Your task to perform on an android device: set an alarm Image 0: 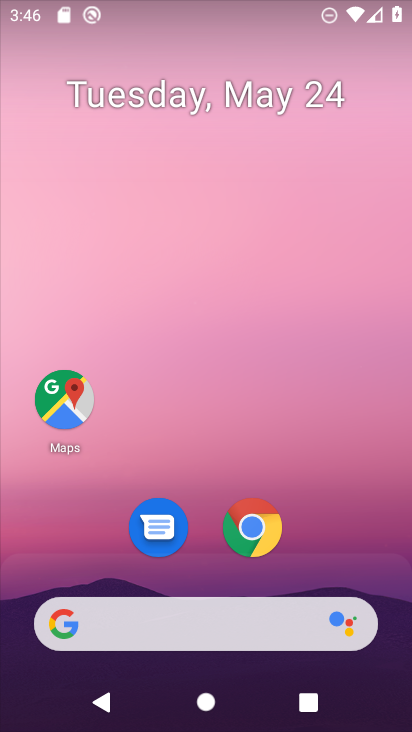
Step 0: drag from (196, 603) to (260, 7)
Your task to perform on an android device: set an alarm Image 1: 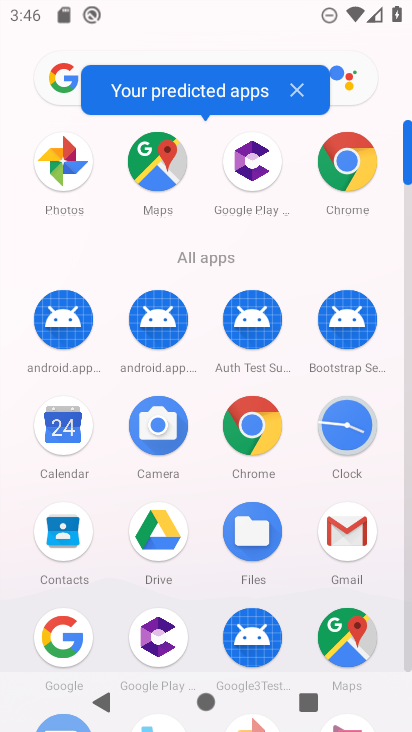
Step 1: click (342, 407)
Your task to perform on an android device: set an alarm Image 2: 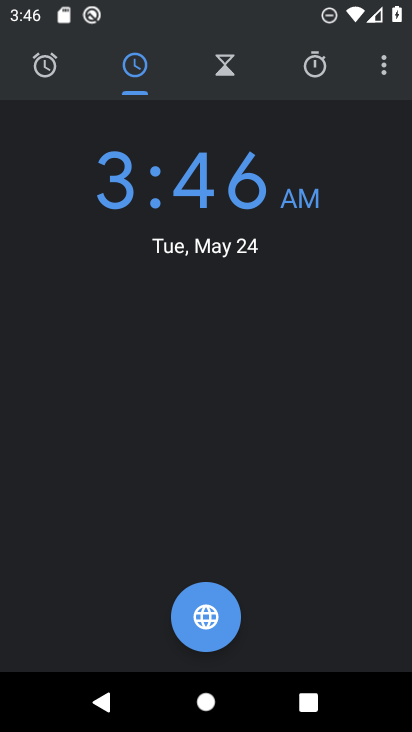
Step 2: click (42, 67)
Your task to perform on an android device: set an alarm Image 3: 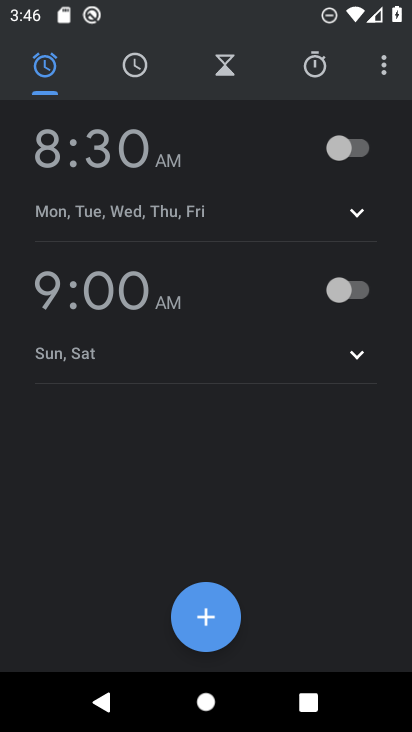
Step 3: click (346, 147)
Your task to perform on an android device: set an alarm Image 4: 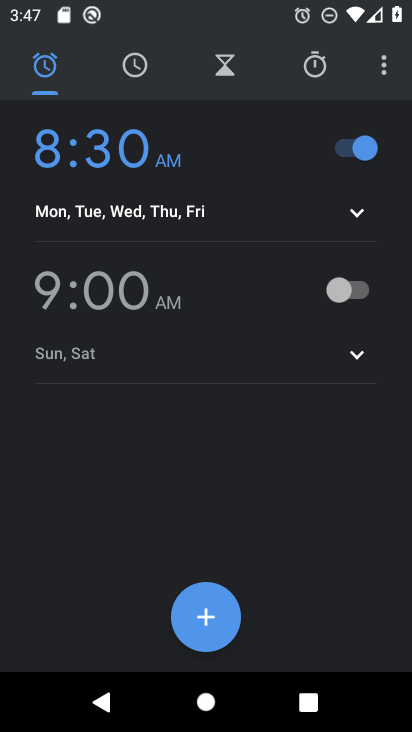
Step 4: task complete